Your task to perform on an android device: Go to internet settings Image 0: 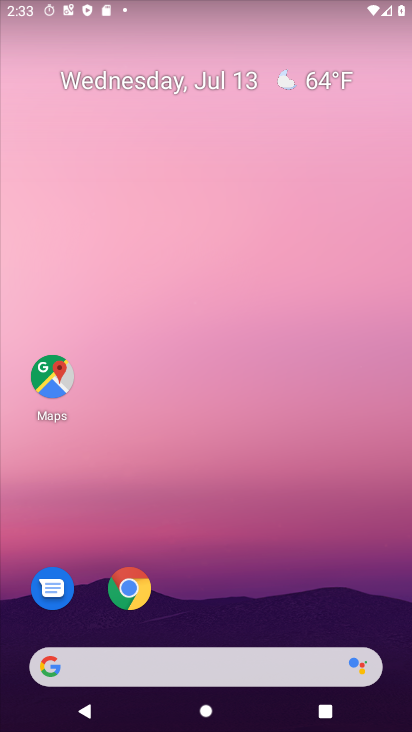
Step 0: drag from (173, 593) to (201, 273)
Your task to perform on an android device: Go to internet settings Image 1: 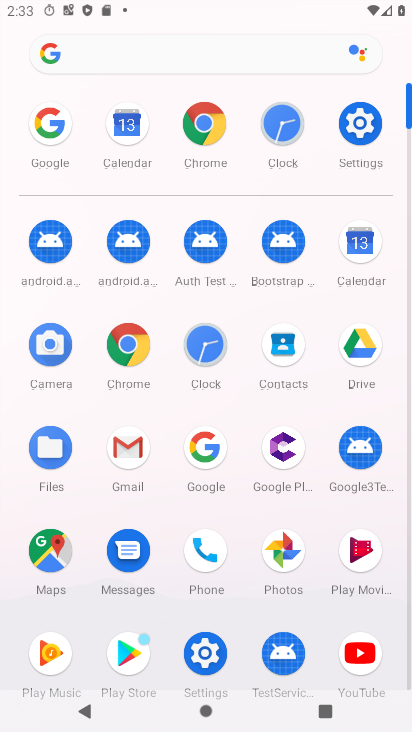
Step 1: click (352, 131)
Your task to perform on an android device: Go to internet settings Image 2: 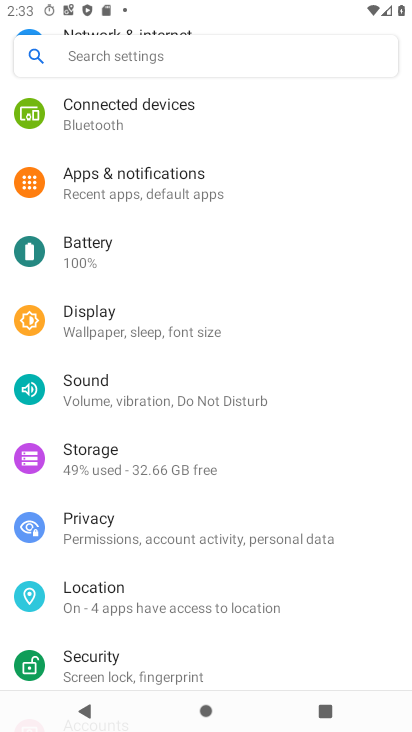
Step 2: drag from (127, 152) to (139, 564)
Your task to perform on an android device: Go to internet settings Image 3: 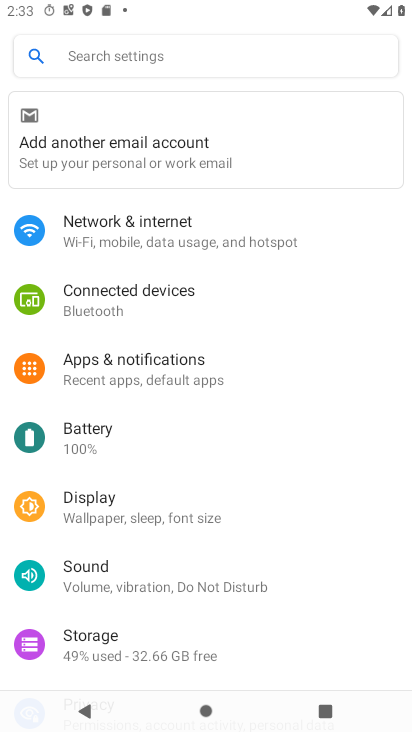
Step 3: click (106, 250)
Your task to perform on an android device: Go to internet settings Image 4: 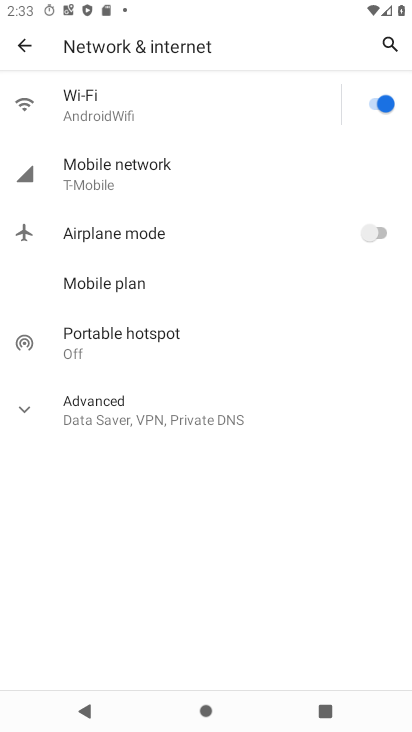
Step 4: click (100, 423)
Your task to perform on an android device: Go to internet settings Image 5: 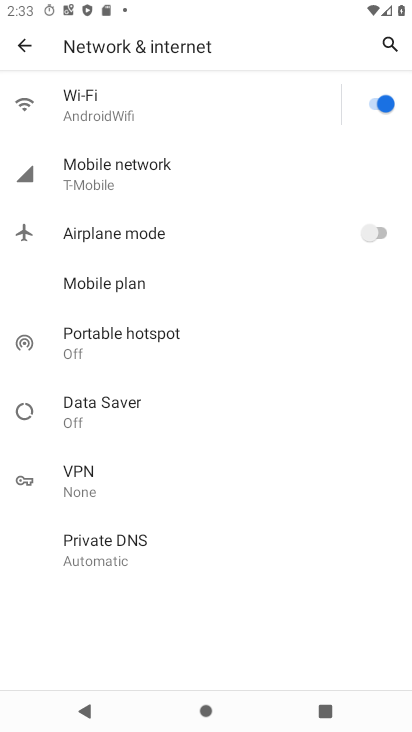
Step 5: task complete